Your task to perform on an android device: toggle airplane mode Image 0: 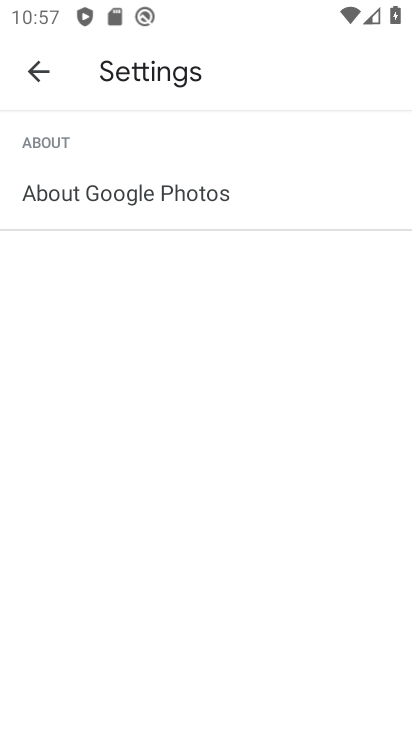
Step 0: press home button
Your task to perform on an android device: toggle airplane mode Image 1: 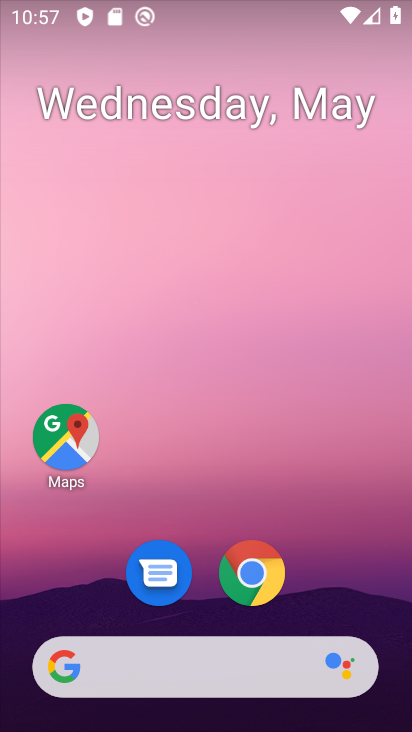
Step 1: drag from (367, 583) to (356, 148)
Your task to perform on an android device: toggle airplane mode Image 2: 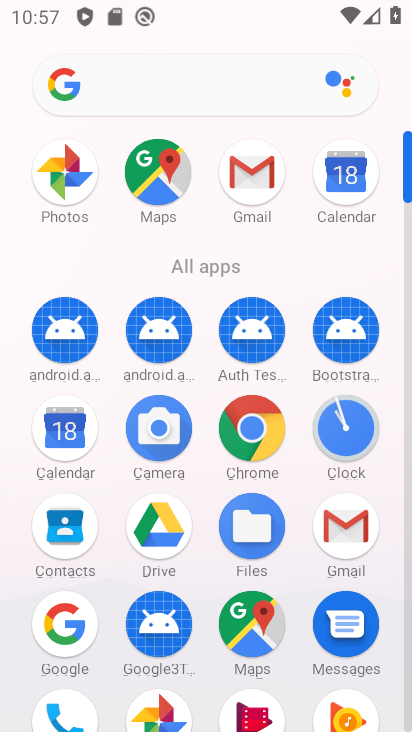
Step 2: drag from (291, 495) to (284, 262)
Your task to perform on an android device: toggle airplane mode Image 3: 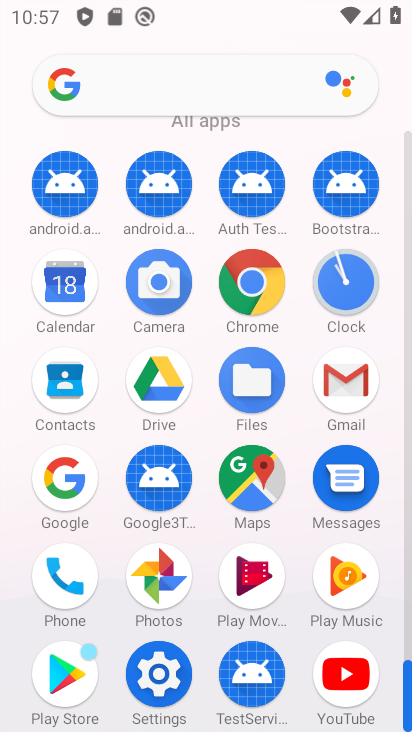
Step 3: click (162, 685)
Your task to perform on an android device: toggle airplane mode Image 4: 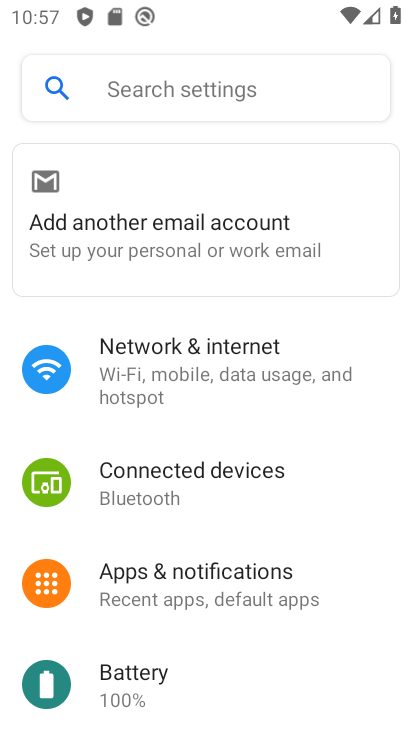
Step 4: drag from (360, 631) to (360, 486)
Your task to perform on an android device: toggle airplane mode Image 5: 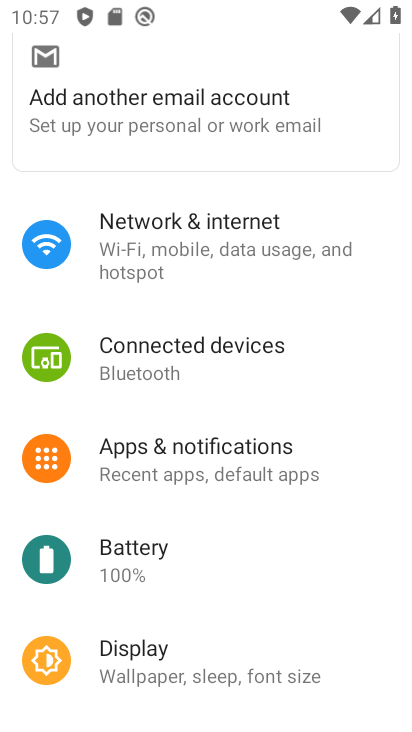
Step 5: drag from (356, 641) to (352, 513)
Your task to perform on an android device: toggle airplane mode Image 6: 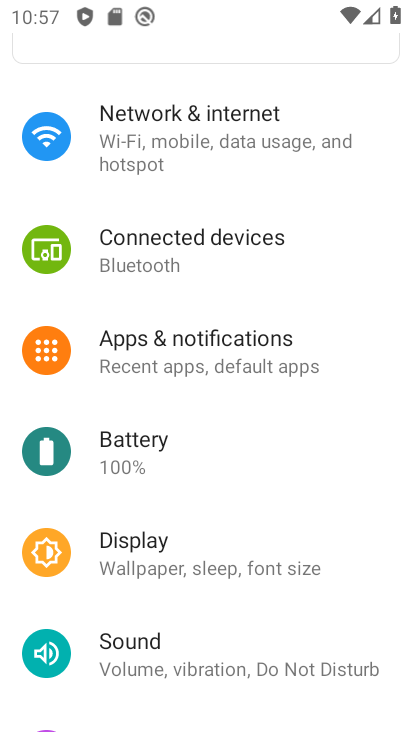
Step 6: drag from (369, 645) to (363, 493)
Your task to perform on an android device: toggle airplane mode Image 7: 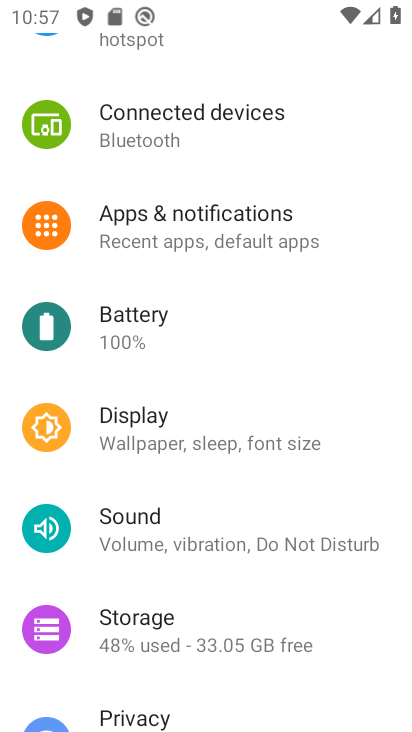
Step 7: drag from (364, 661) to (353, 496)
Your task to perform on an android device: toggle airplane mode Image 8: 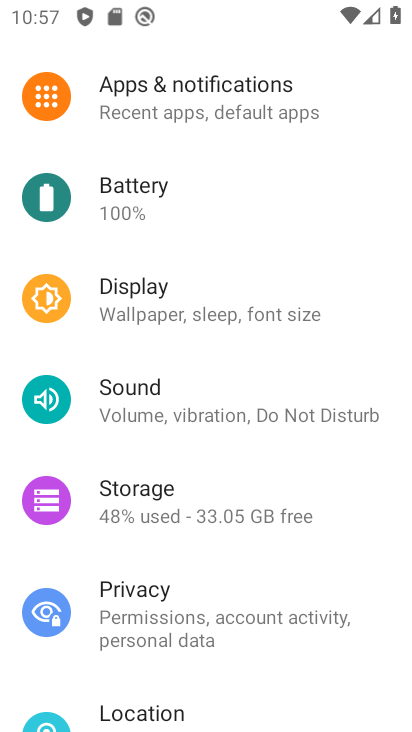
Step 8: drag from (346, 655) to (336, 514)
Your task to perform on an android device: toggle airplane mode Image 9: 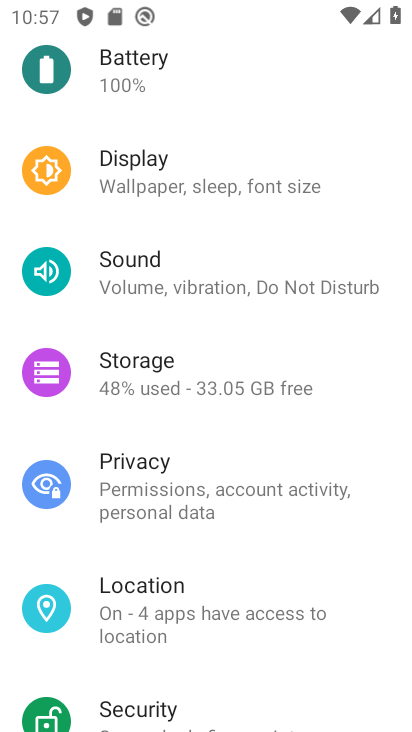
Step 9: drag from (334, 647) to (328, 503)
Your task to perform on an android device: toggle airplane mode Image 10: 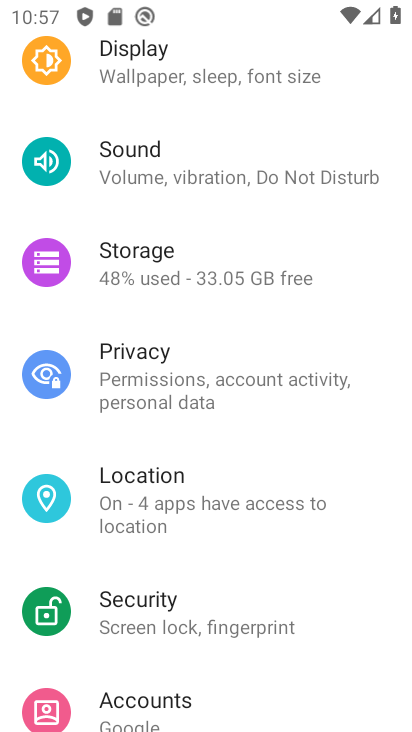
Step 10: drag from (341, 665) to (340, 486)
Your task to perform on an android device: toggle airplane mode Image 11: 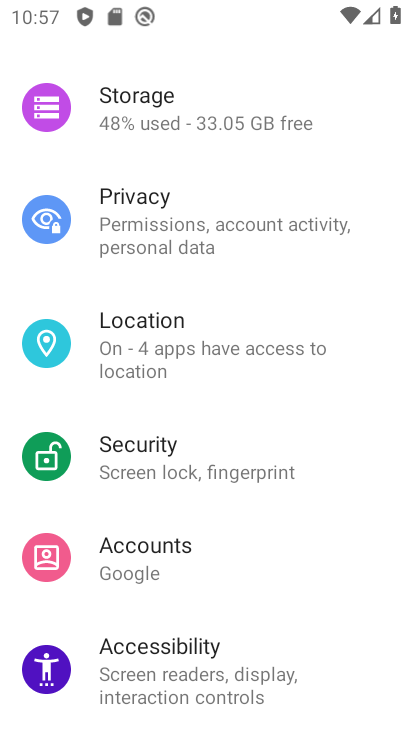
Step 11: drag from (332, 631) to (337, 457)
Your task to perform on an android device: toggle airplane mode Image 12: 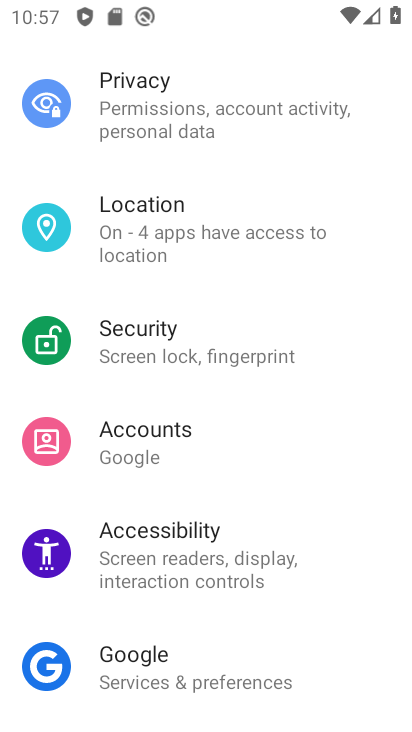
Step 12: drag from (349, 660) to (347, 532)
Your task to perform on an android device: toggle airplane mode Image 13: 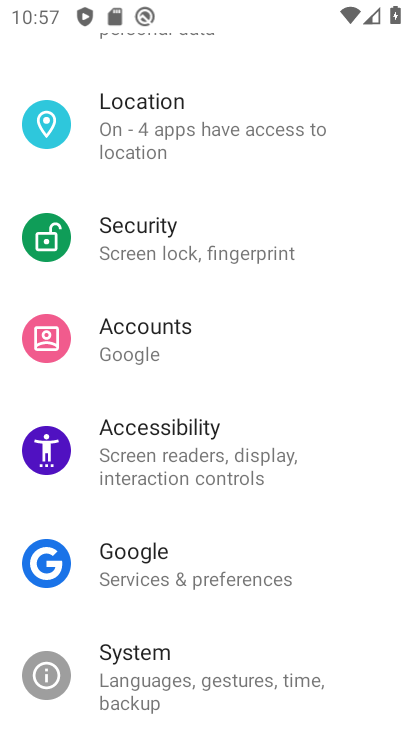
Step 13: drag from (337, 644) to (334, 454)
Your task to perform on an android device: toggle airplane mode Image 14: 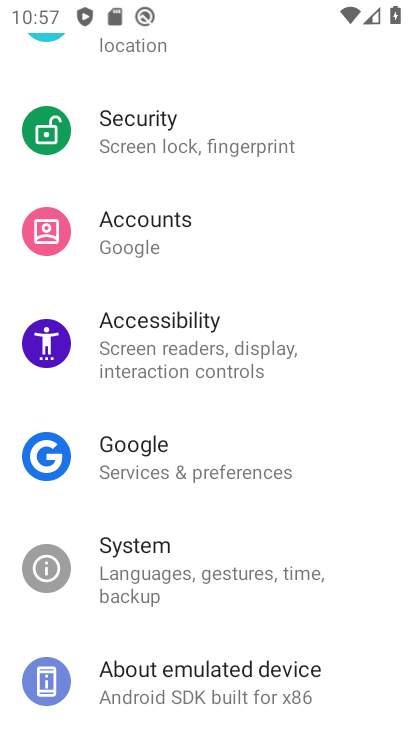
Step 14: drag from (350, 633) to (351, 447)
Your task to perform on an android device: toggle airplane mode Image 15: 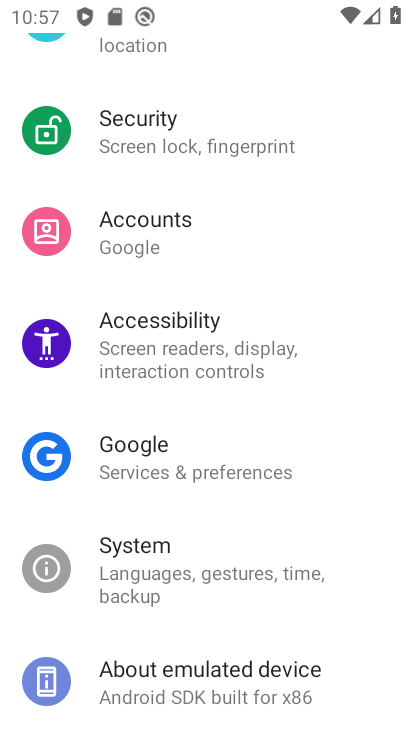
Step 15: drag from (368, 353) to (347, 492)
Your task to perform on an android device: toggle airplane mode Image 16: 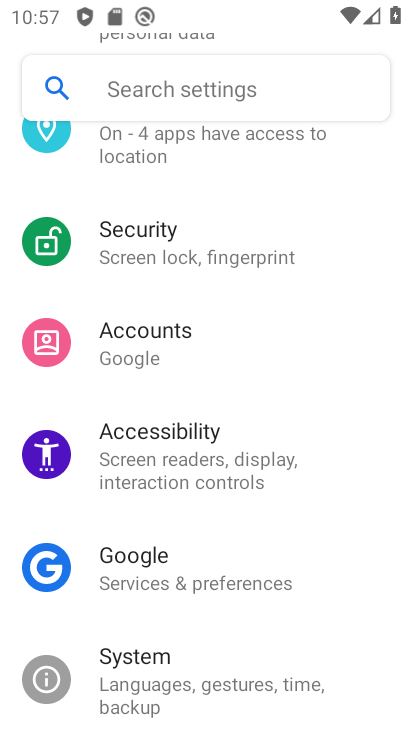
Step 16: drag from (349, 308) to (322, 433)
Your task to perform on an android device: toggle airplane mode Image 17: 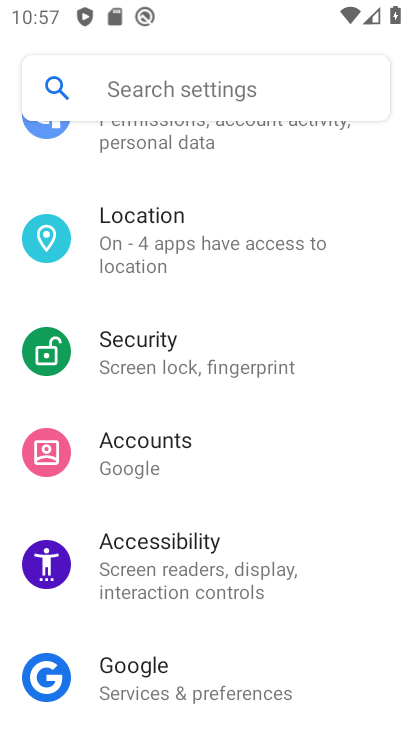
Step 17: drag from (335, 260) to (308, 470)
Your task to perform on an android device: toggle airplane mode Image 18: 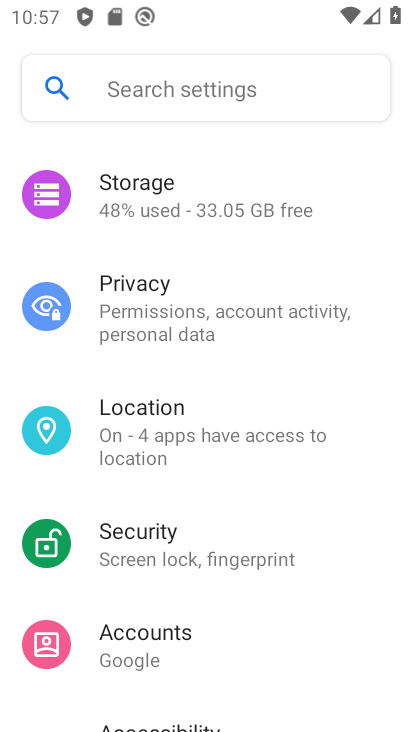
Step 18: drag from (361, 235) to (342, 445)
Your task to perform on an android device: toggle airplane mode Image 19: 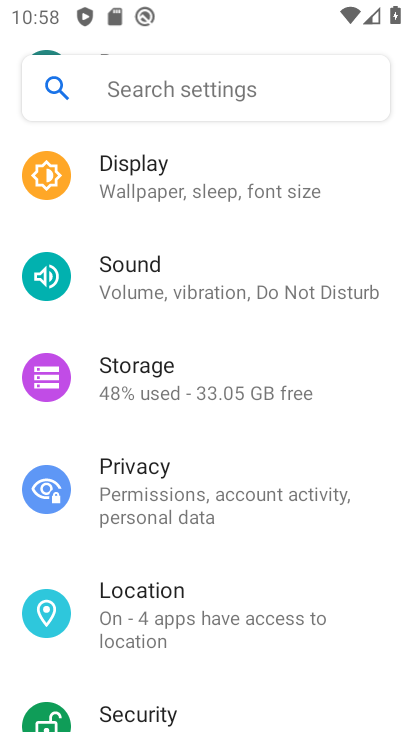
Step 19: drag from (371, 221) to (367, 437)
Your task to perform on an android device: toggle airplane mode Image 20: 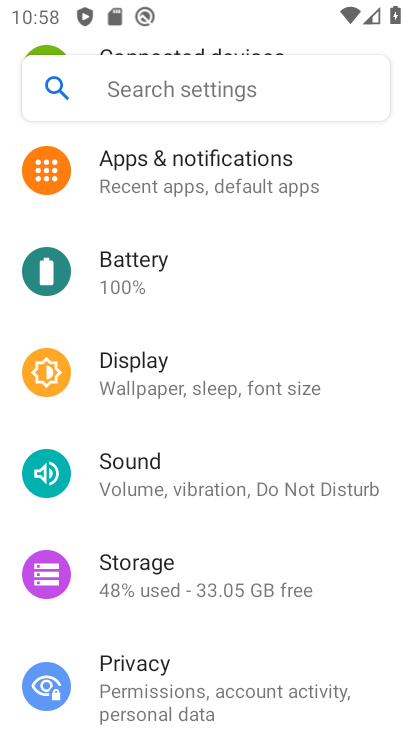
Step 20: drag from (361, 204) to (345, 358)
Your task to perform on an android device: toggle airplane mode Image 21: 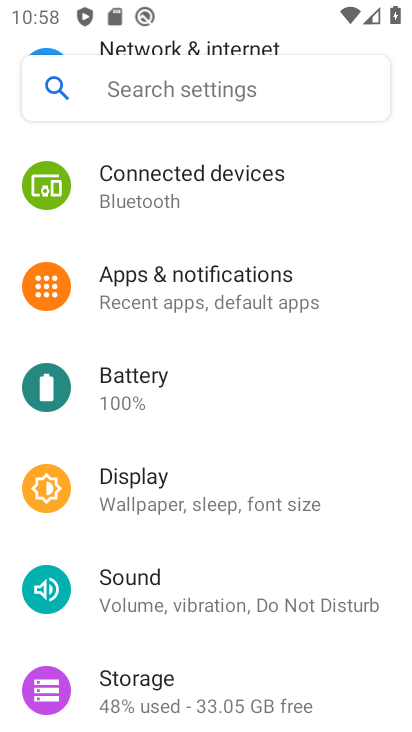
Step 21: drag from (352, 172) to (341, 392)
Your task to perform on an android device: toggle airplane mode Image 22: 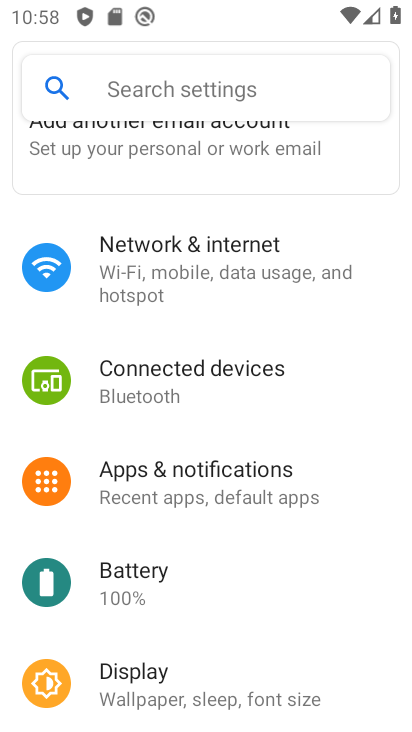
Step 22: click (254, 261)
Your task to perform on an android device: toggle airplane mode Image 23: 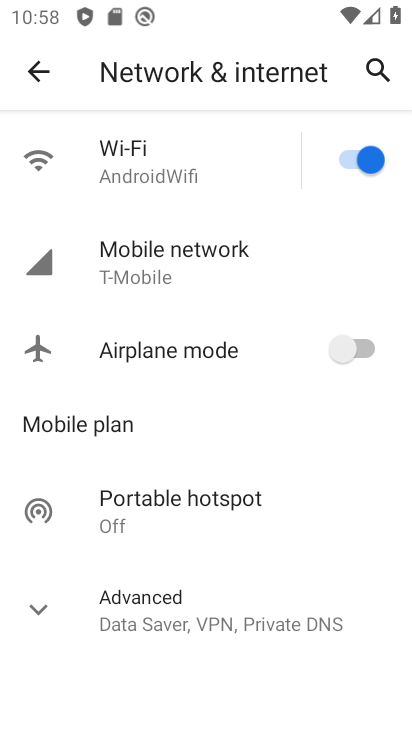
Step 23: click (352, 354)
Your task to perform on an android device: toggle airplane mode Image 24: 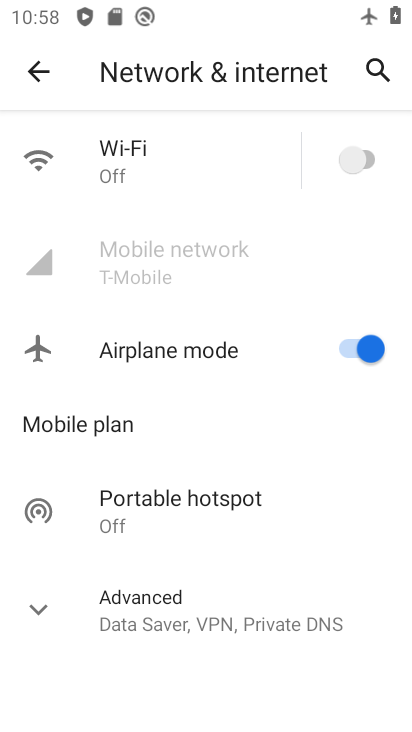
Step 24: task complete